Your task to perform on an android device: turn notification dots off Image 0: 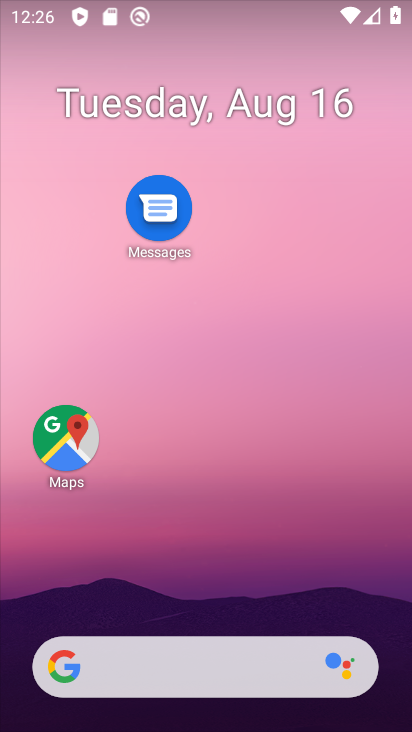
Step 0: drag from (349, 173) to (311, 7)
Your task to perform on an android device: turn notification dots off Image 1: 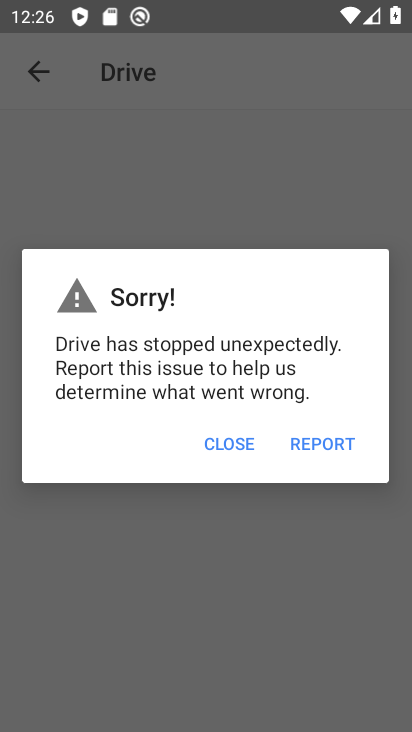
Step 1: press back button
Your task to perform on an android device: turn notification dots off Image 2: 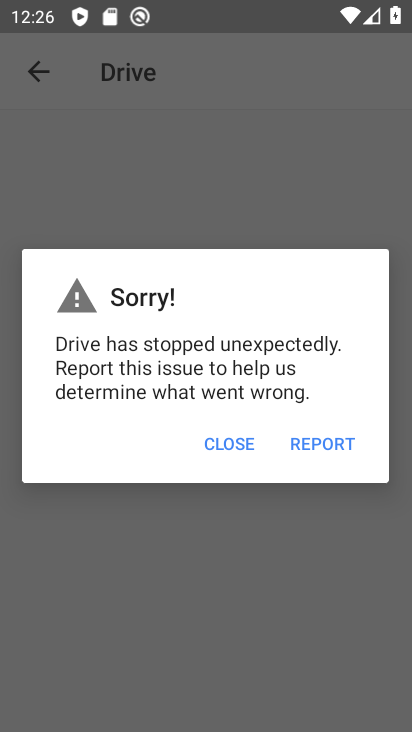
Step 2: press back button
Your task to perform on an android device: turn notification dots off Image 3: 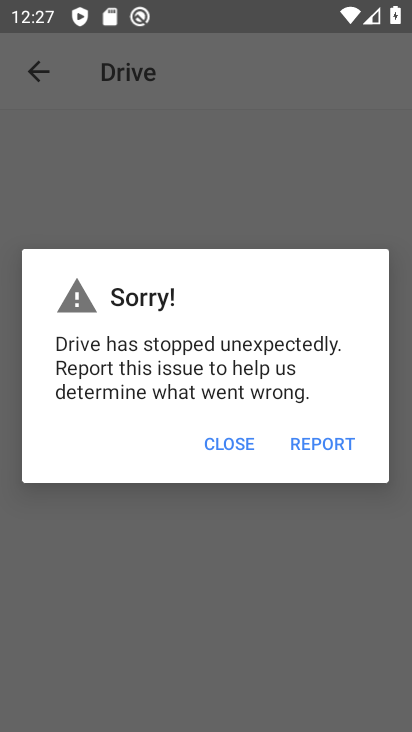
Step 3: press back button
Your task to perform on an android device: turn notification dots off Image 4: 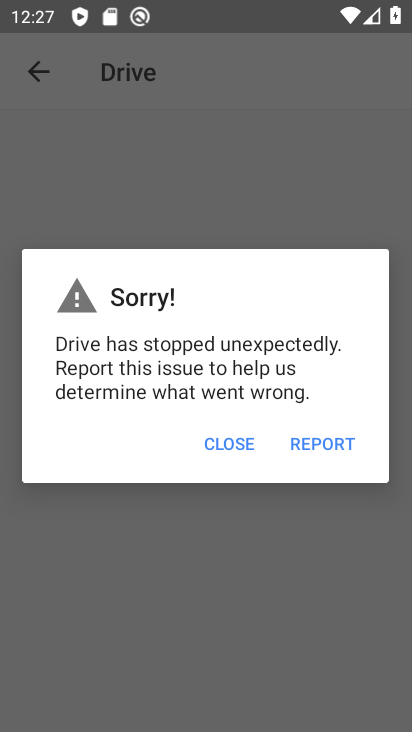
Step 4: press back button
Your task to perform on an android device: turn notification dots off Image 5: 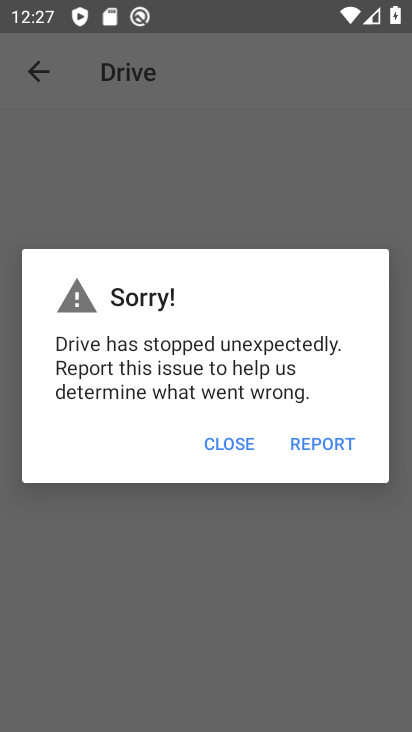
Step 5: click (226, 443)
Your task to perform on an android device: turn notification dots off Image 6: 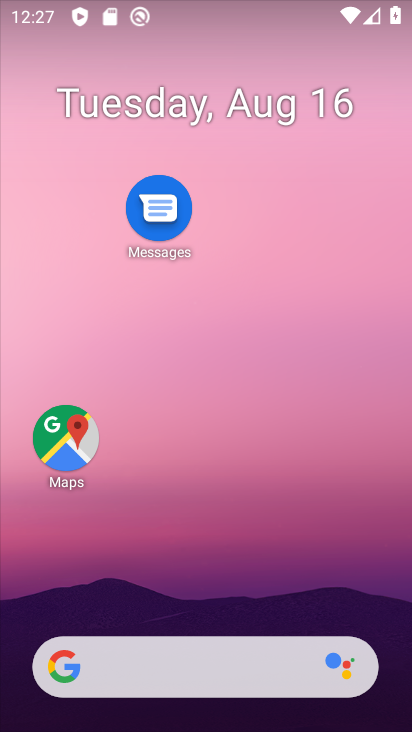
Step 6: drag from (245, 599) to (165, 36)
Your task to perform on an android device: turn notification dots off Image 7: 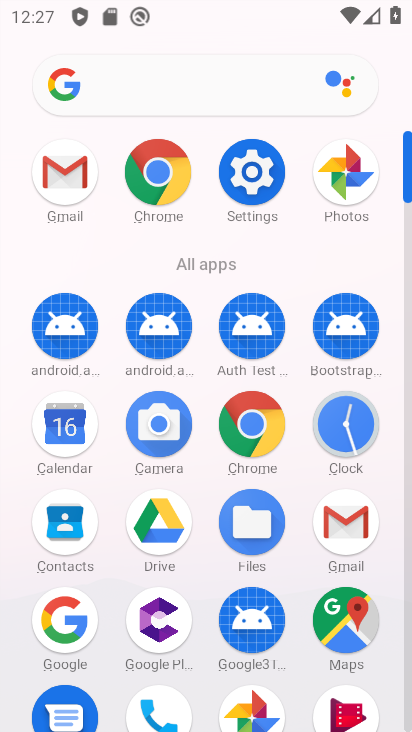
Step 7: click (247, 194)
Your task to perform on an android device: turn notification dots off Image 8: 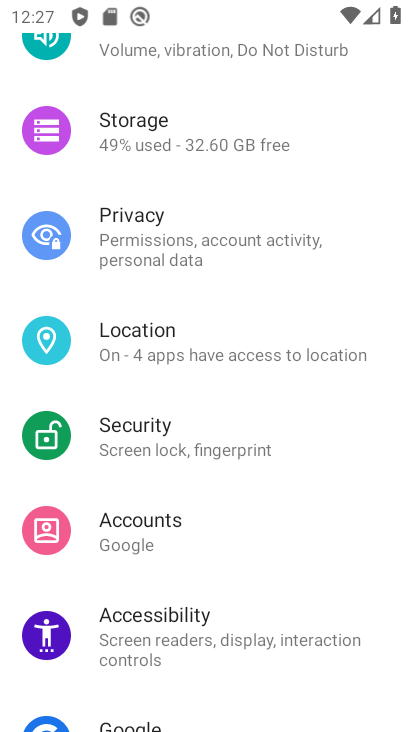
Step 8: drag from (202, 299) to (261, 686)
Your task to perform on an android device: turn notification dots off Image 9: 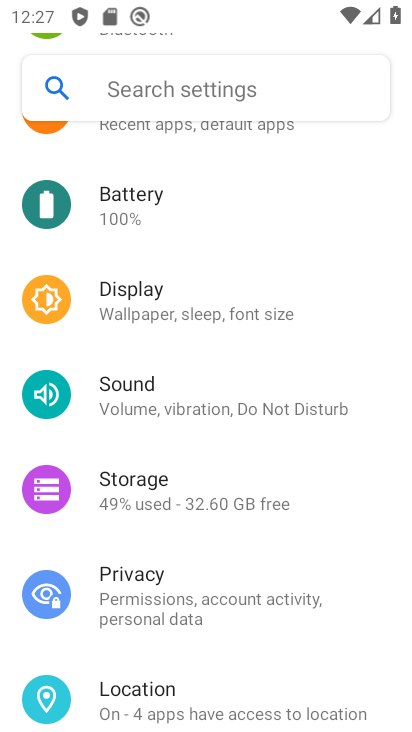
Step 9: drag from (217, 172) to (225, 601)
Your task to perform on an android device: turn notification dots off Image 10: 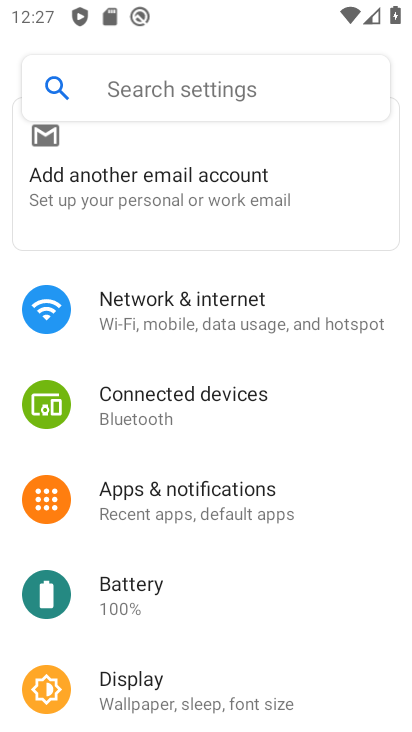
Step 10: click (209, 488)
Your task to perform on an android device: turn notification dots off Image 11: 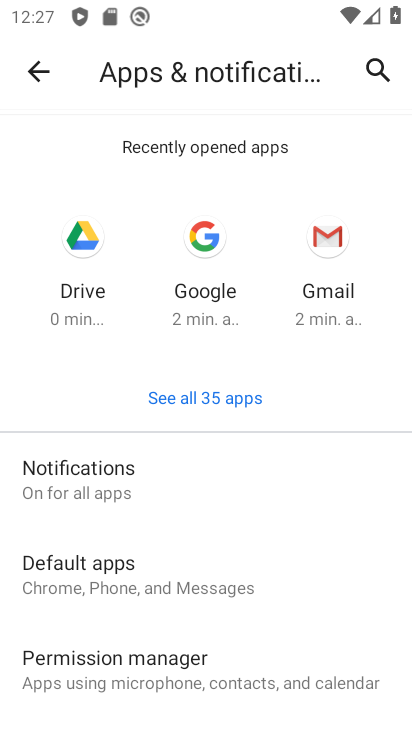
Step 11: click (159, 482)
Your task to perform on an android device: turn notification dots off Image 12: 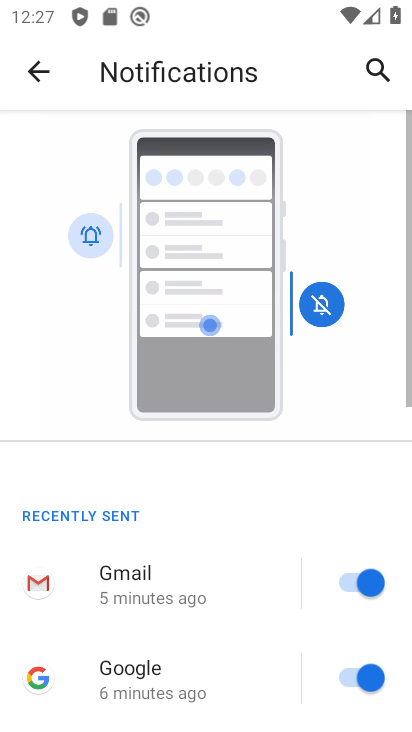
Step 12: drag from (173, 575) to (112, 27)
Your task to perform on an android device: turn notification dots off Image 13: 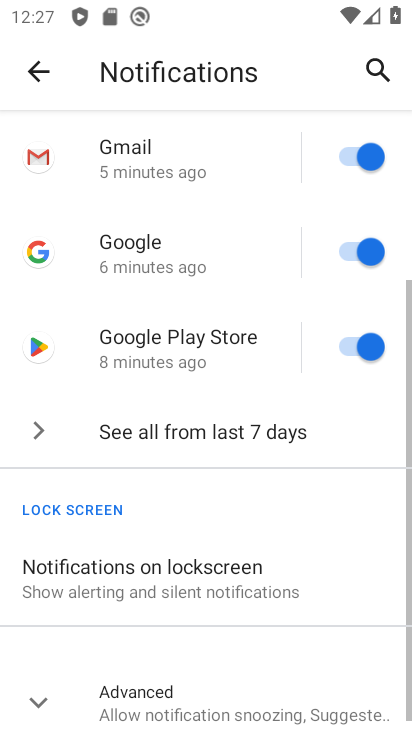
Step 13: click (197, 673)
Your task to perform on an android device: turn notification dots off Image 14: 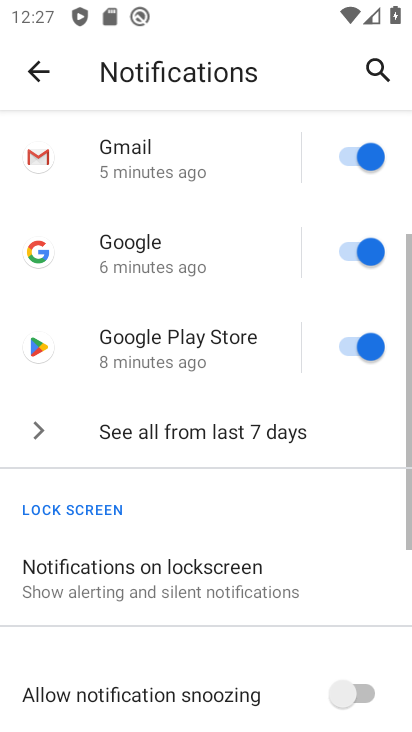
Step 14: drag from (197, 673) to (121, 8)
Your task to perform on an android device: turn notification dots off Image 15: 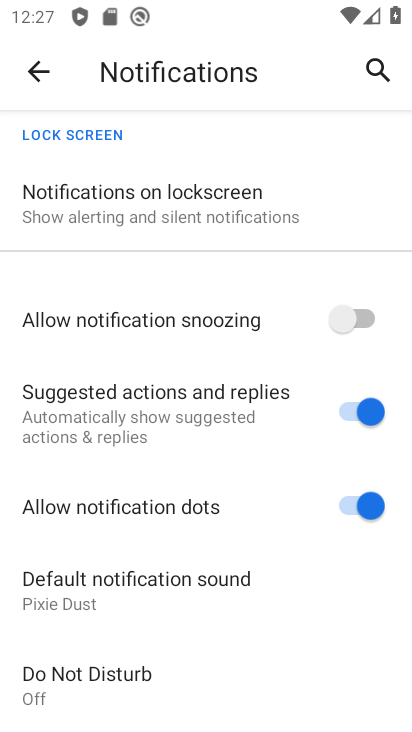
Step 15: drag from (211, 631) to (177, 68)
Your task to perform on an android device: turn notification dots off Image 16: 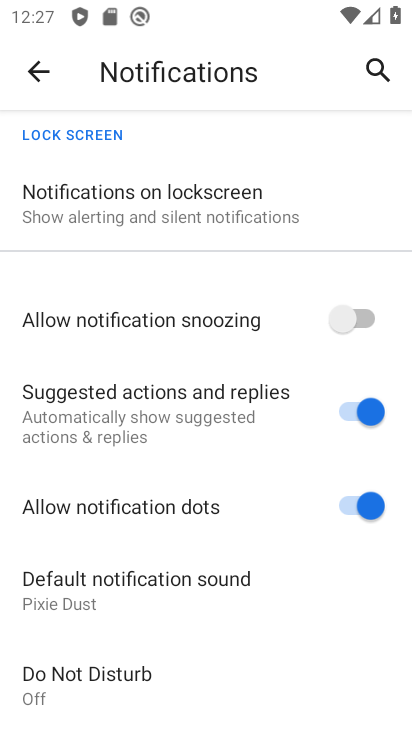
Step 16: click (365, 501)
Your task to perform on an android device: turn notification dots off Image 17: 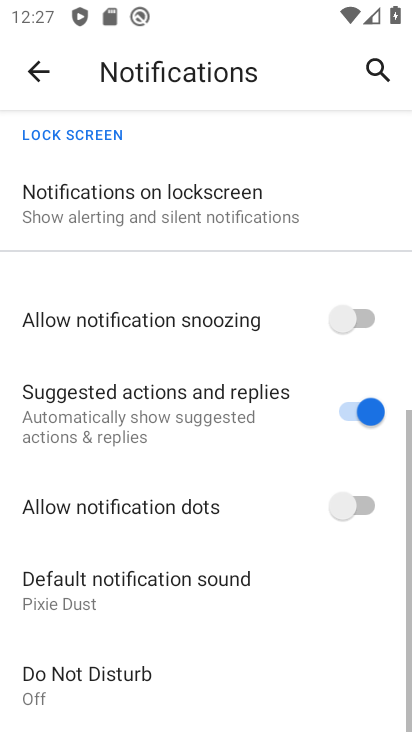
Step 17: task complete